Your task to perform on an android device: Open display settings Image 0: 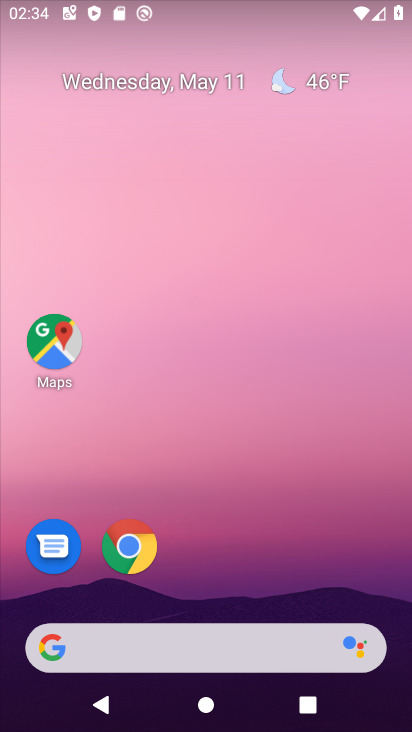
Step 0: drag from (181, 602) to (244, 159)
Your task to perform on an android device: Open display settings Image 1: 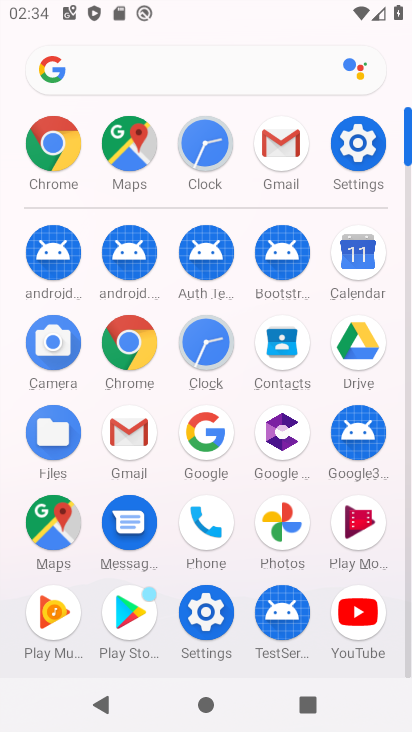
Step 1: click (198, 620)
Your task to perform on an android device: Open display settings Image 2: 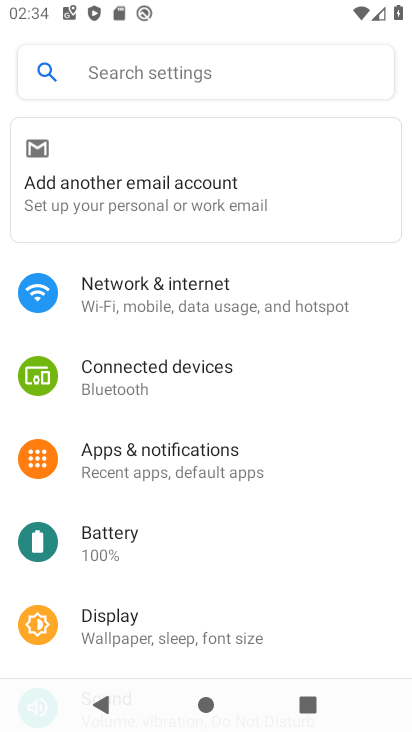
Step 2: drag from (177, 618) to (250, 283)
Your task to perform on an android device: Open display settings Image 3: 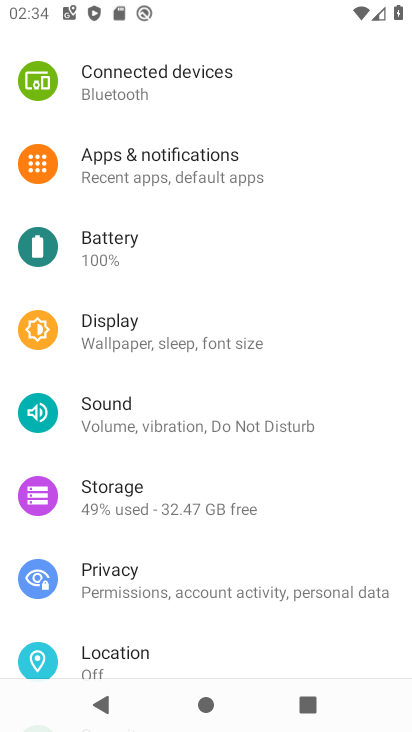
Step 3: click (144, 342)
Your task to perform on an android device: Open display settings Image 4: 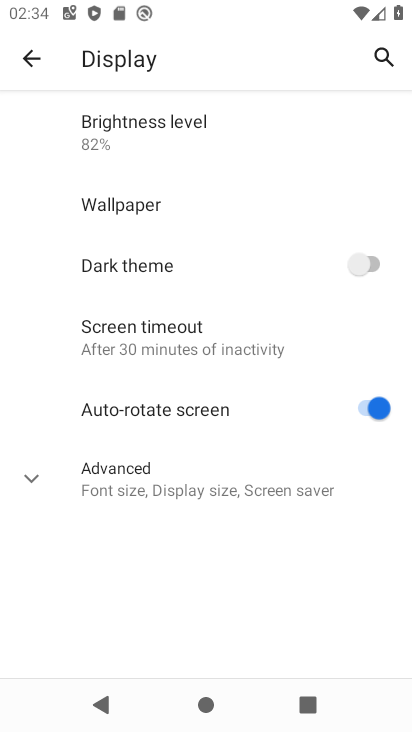
Step 4: task complete